Your task to perform on an android device: allow cookies in the chrome app Image 0: 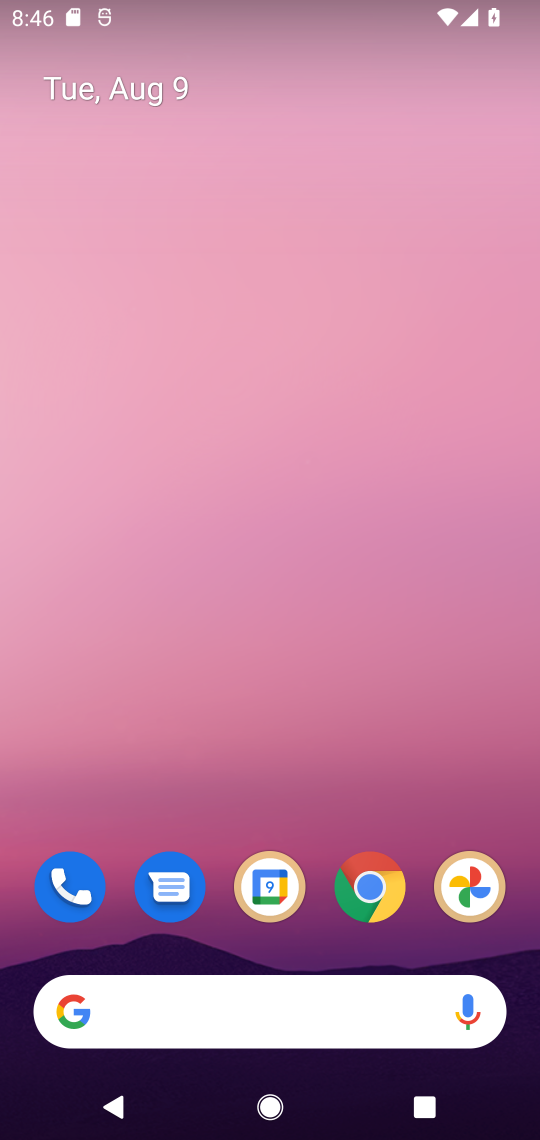
Step 0: click (349, 896)
Your task to perform on an android device: allow cookies in the chrome app Image 1: 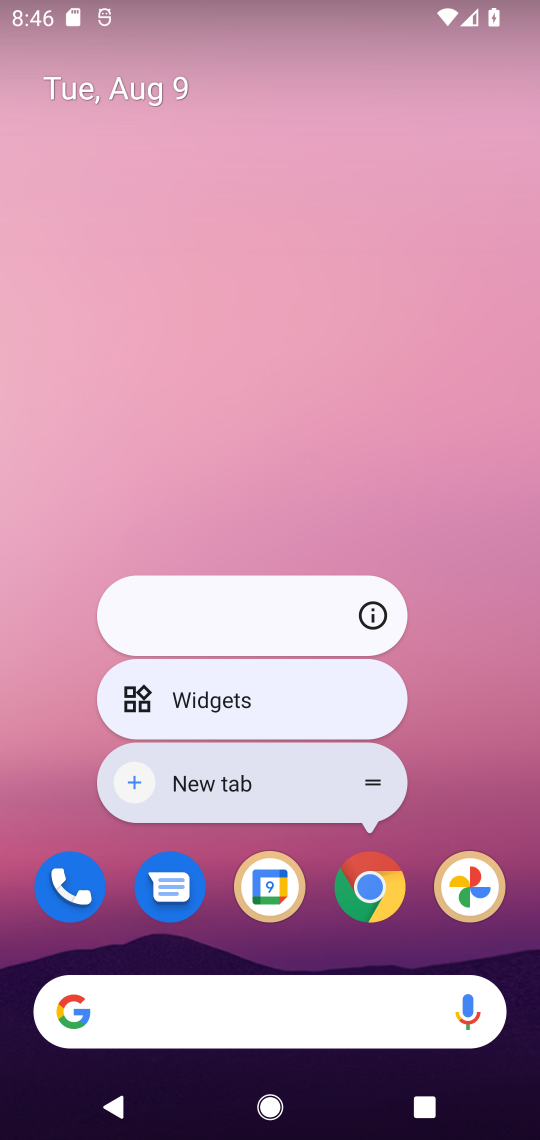
Step 1: click (343, 912)
Your task to perform on an android device: allow cookies in the chrome app Image 2: 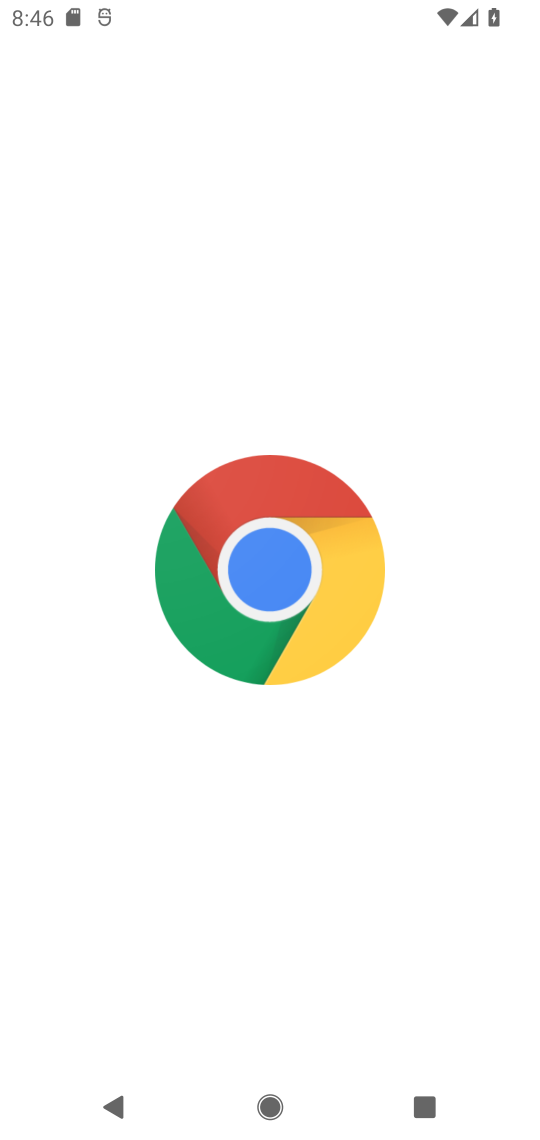
Step 2: task complete